Your task to perform on an android device: Go to Reddit.com Image 0: 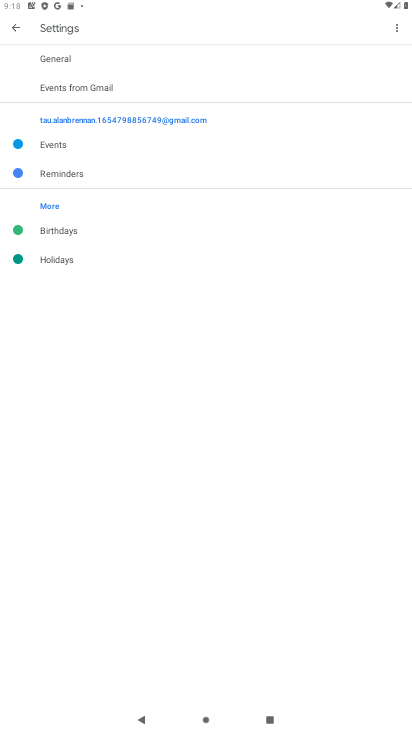
Step 0: press home button
Your task to perform on an android device: Go to Reddit.com Image 1: 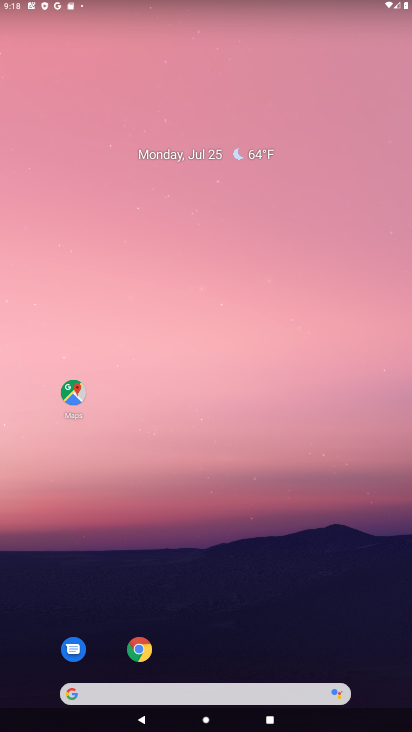
Step 1: click (132, 655)
Your task to perform on an android device: Go to Reddit.com Image 2: 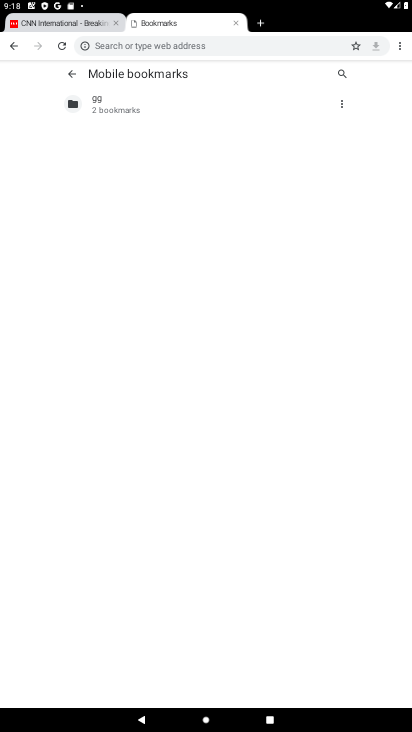
Step 2: click (227, 45)
Your task to perform on an android device: Go to Reddit.com Image 3: 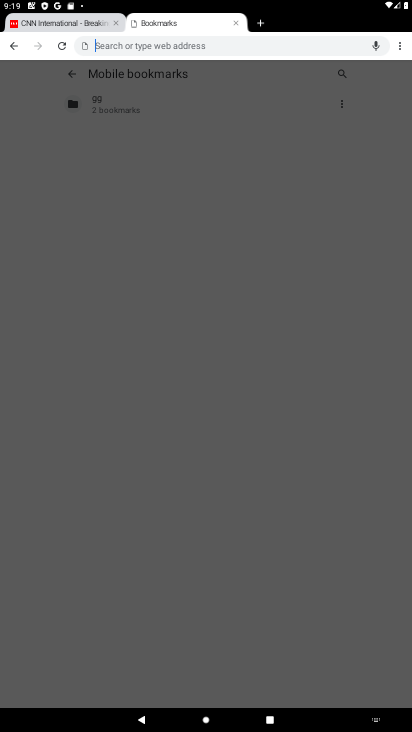
Step 3: type "reddit.com"
Your task to perform on an android device: Go to Reddit.com Image 4: 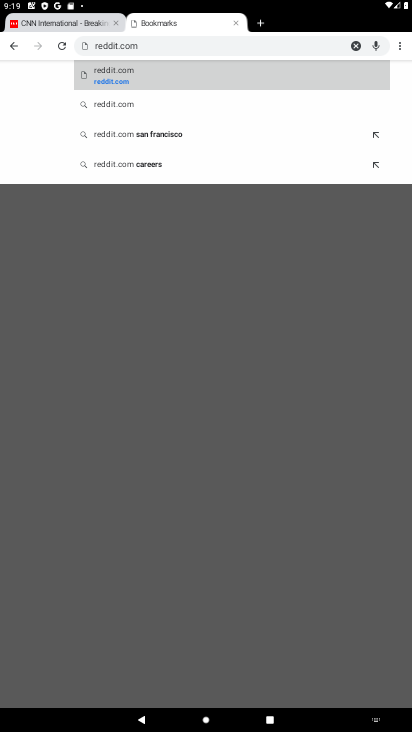
Step 4: click (226, 72)
Your task to perform on an android device: Go to Reddit.com Image 5: 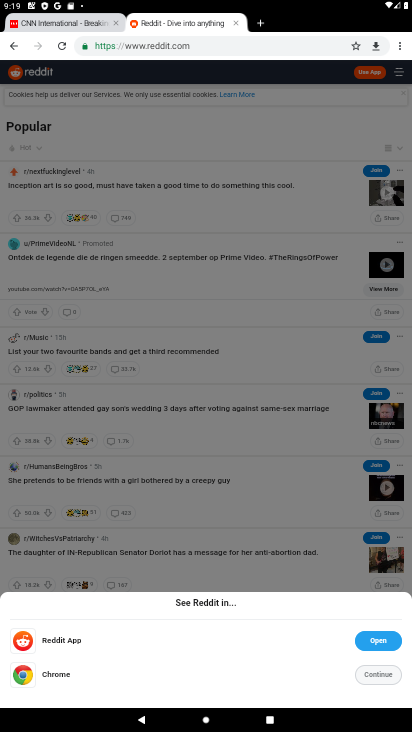
Step 5: task complete